Your task to perform on an android device: uninstall "DoorDash - Food Delivery" Image 0: 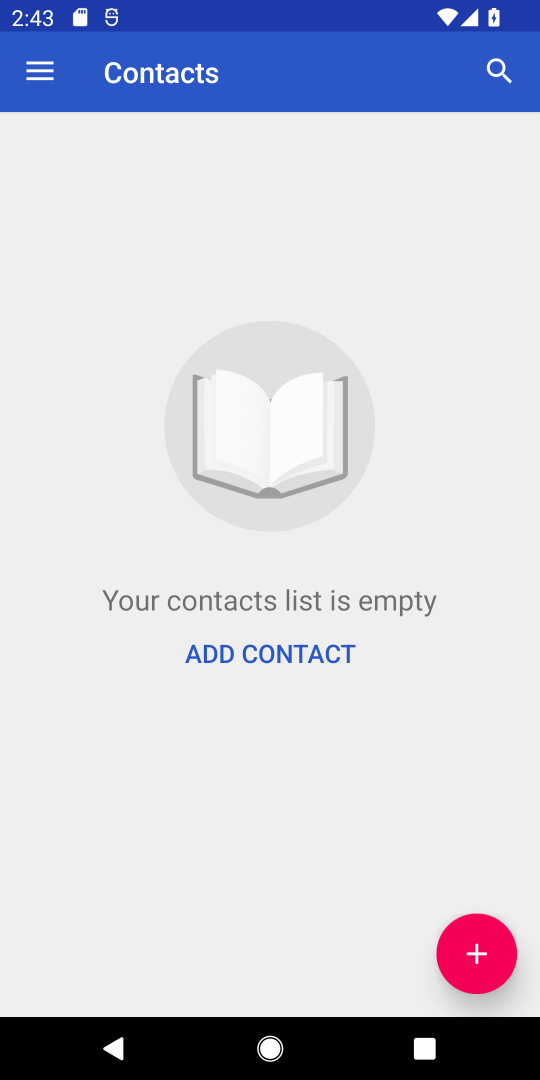
Step 0: press home button
Your task to perform on an android device: uninstall "DoorDash - Food Delivery" Image 1: 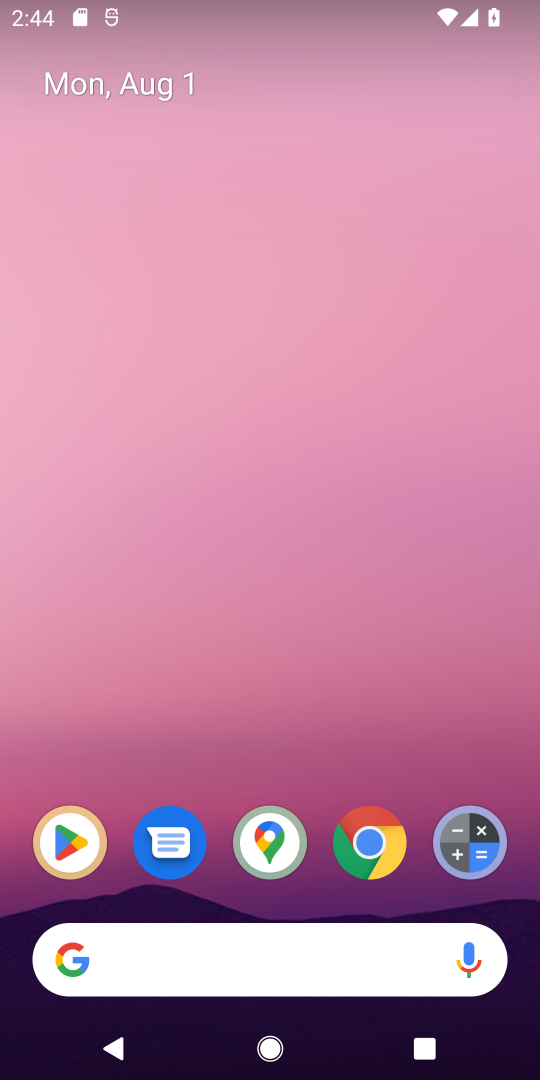
Step 1: click (45, 863)
Your task to perform on an android device: uninstall "DoorDash - Food Delivery" Image 2: 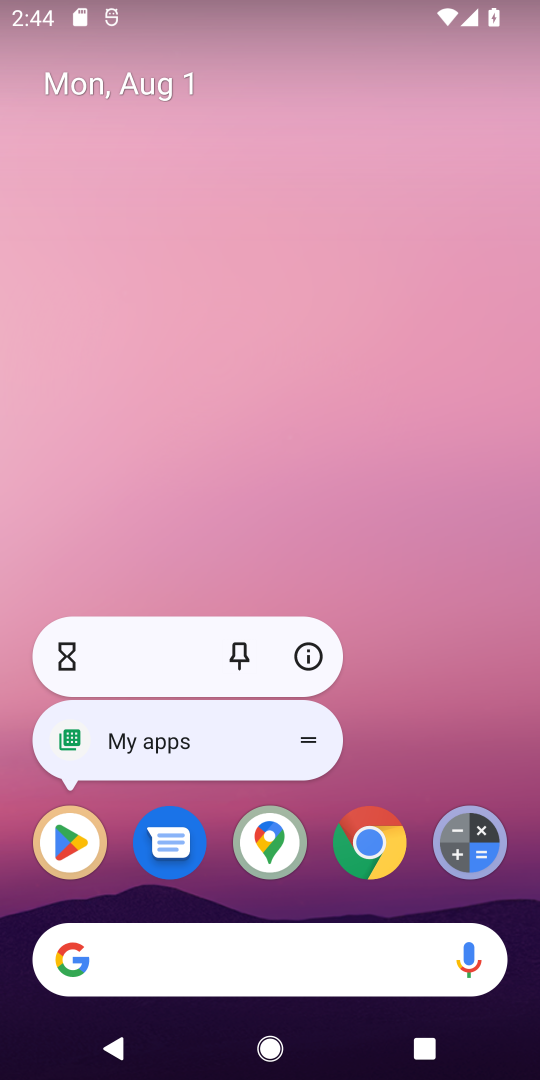
Step 2: click (56, 853)
Your task to perform on an android device: uninstall "DoorDash - Food Delivery" Image 3: 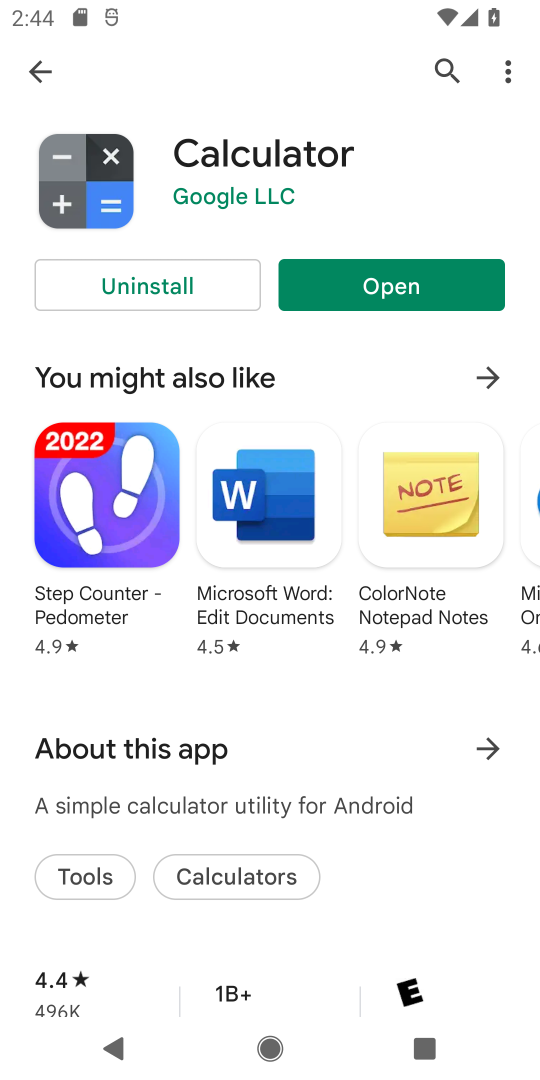
Step 3: click (39, 65)
Your task to perform on an android device: uninstall "DoorDash - Food Delivery" Image 4: 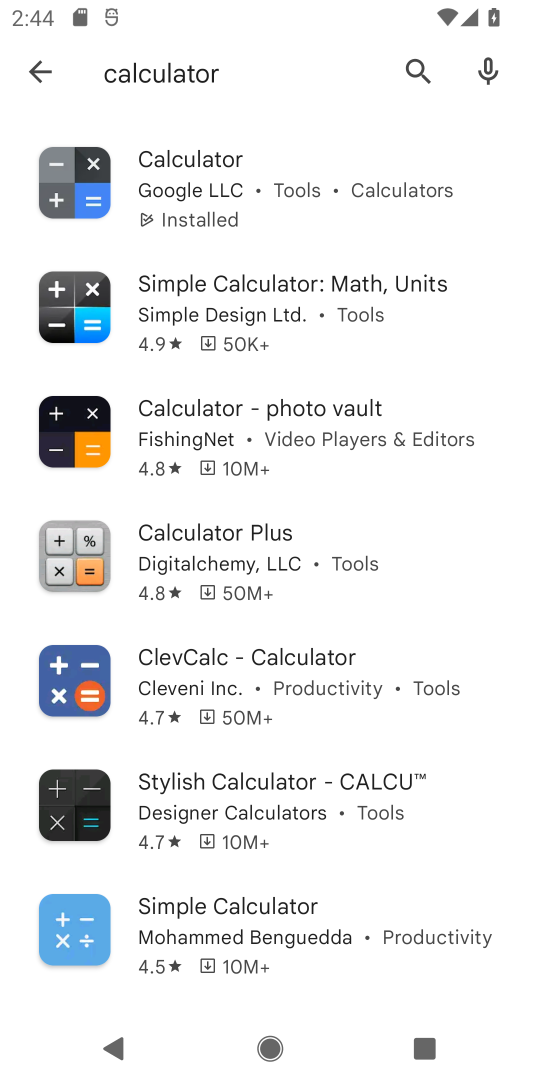
Step 4: click (195, 74)
Your task to perform on an android device: uninstall "DoorDash - Food Delivery" Image 5: 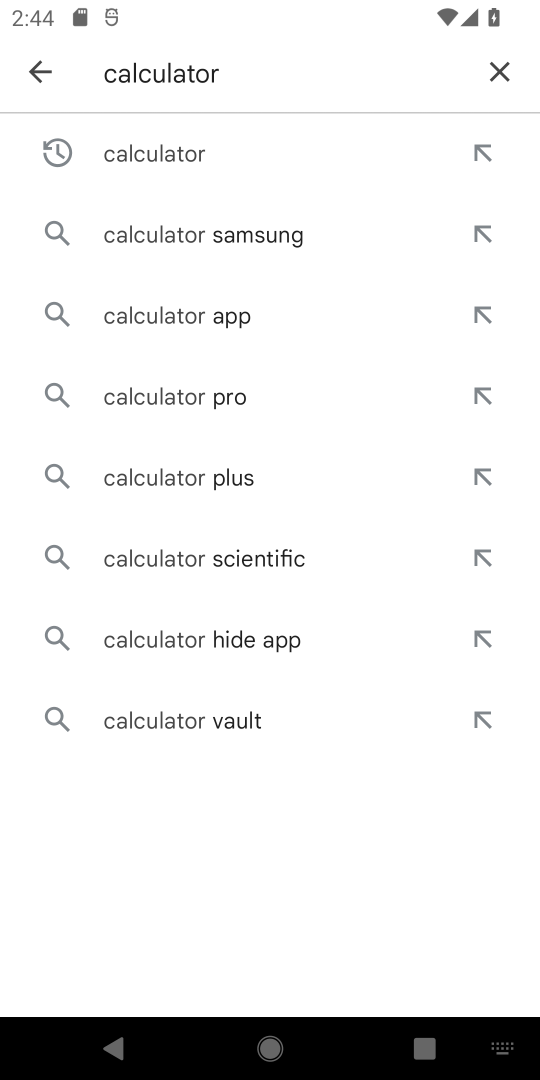
Step 5: click (505, 69)
Your task to perform on an android device: uninstall "DoorDash - Food Delivery" Image 6: 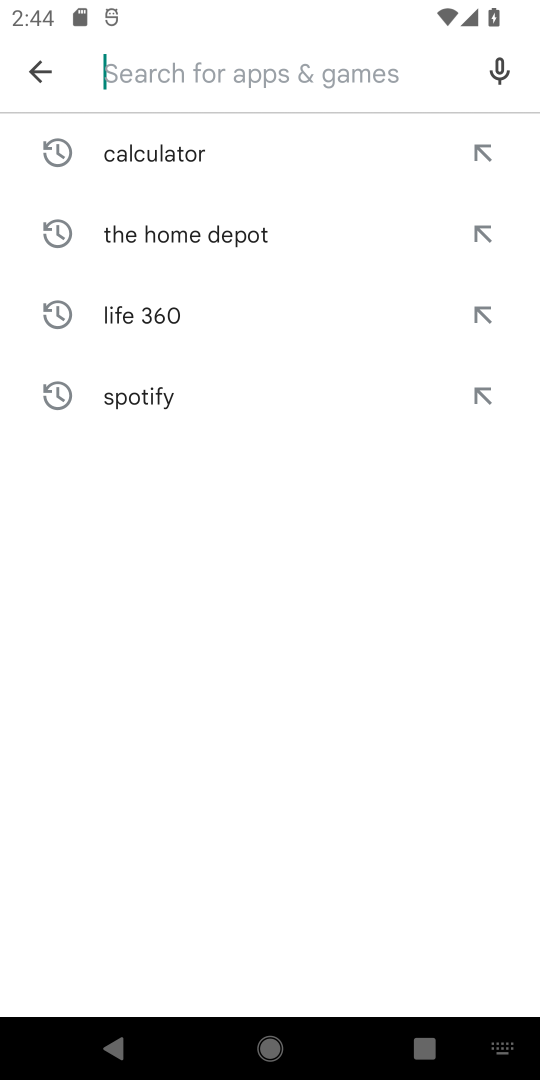
Step 6: type "DoorDash"
Your task to perform on an android device: uninstall "DoorDash - Food Delivery" Image 7: 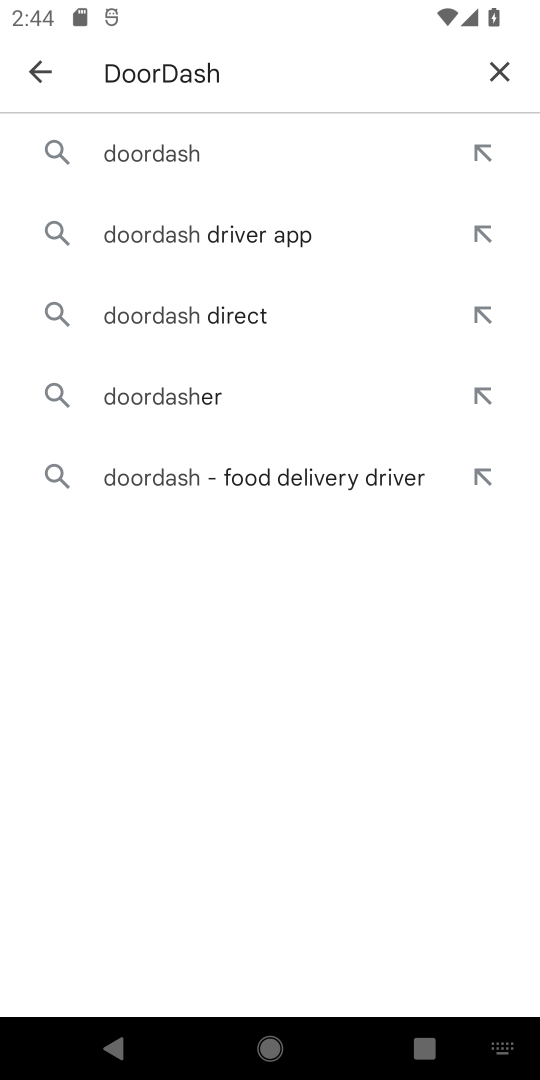
Step 7: click (216, 162)
Your task to perform on an android device: uninstall "DoorDash - Food Delivery" Image 8: 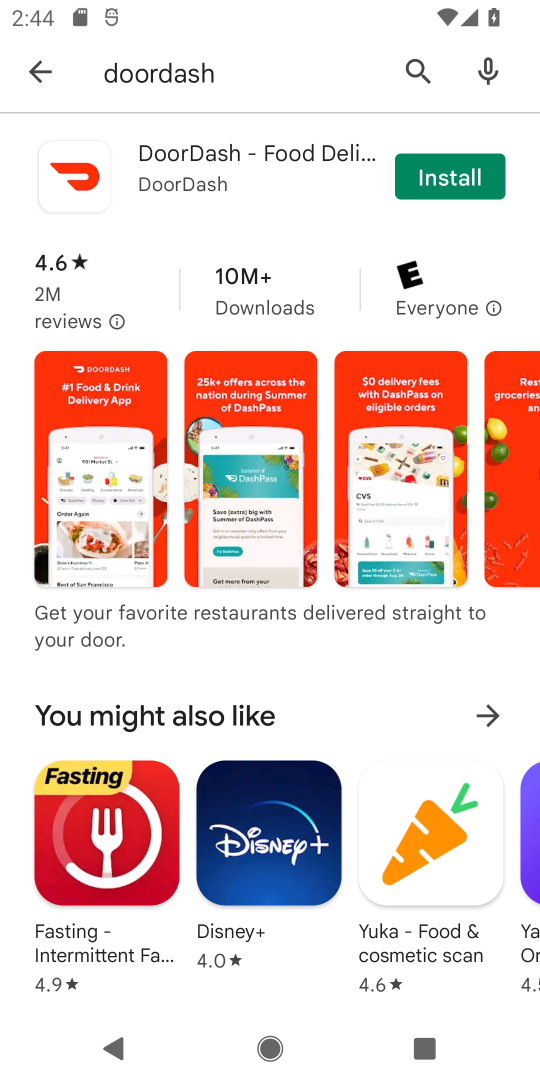
Step 8: task complete